Your task to perform on an android device: See recent photos Image 0: 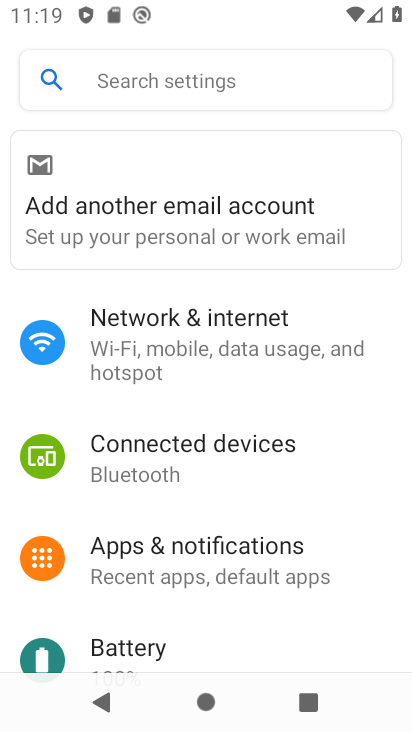
Step 0: press home button
Your task to perform on an android device: See recent photos Image 1: 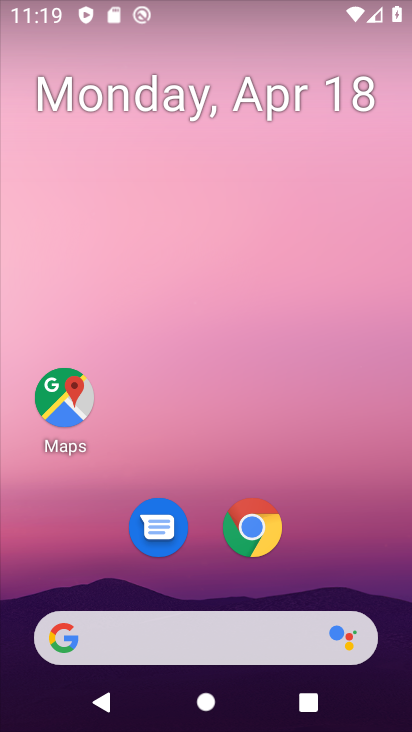
Step 1: drag from (201, 605) to (402, 5)
Your task to perform on an android device: See recent photos Image 2: 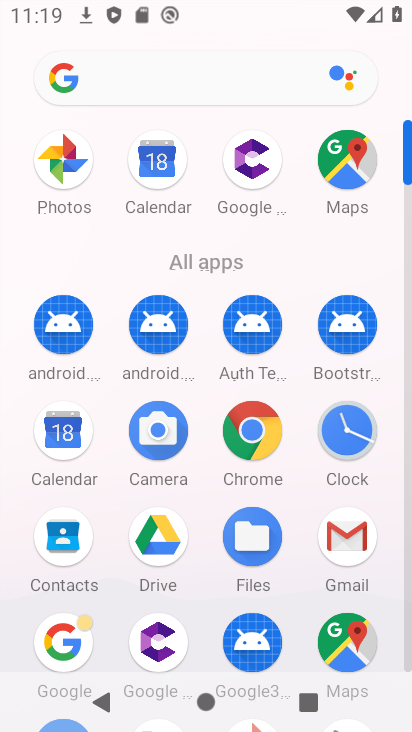
Step 2: click (74, 175)
Your task to perform on an android device: See recent photos Image 3: 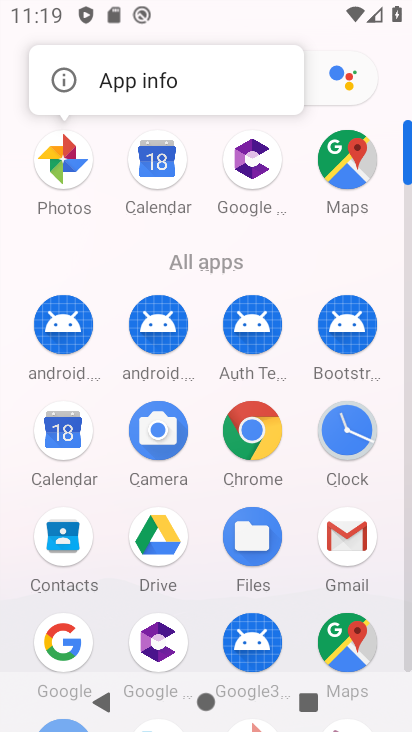
Step 3: click (74, 175)
Your task to perform on an android device: See recent photos Image 4: 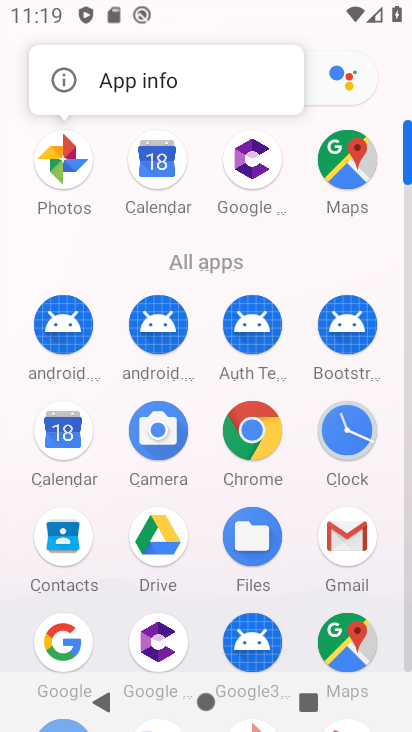
Step 4: click (74, 175)
Your task to perform on an android device: See recent photos Image 5: 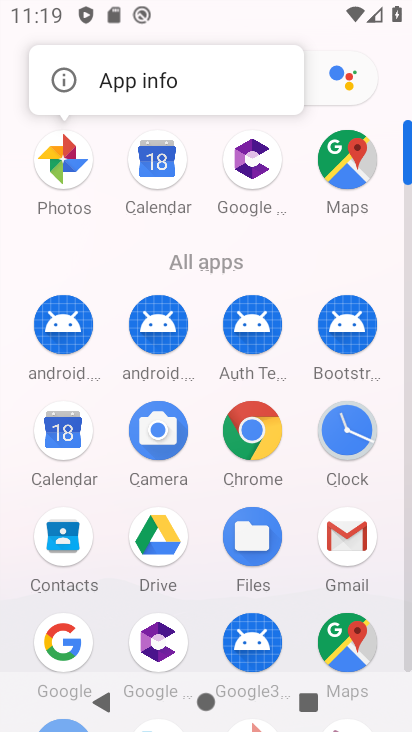
Step 5: click (57, 163)
Your task to perform on an android device: See recent photos Image 6: 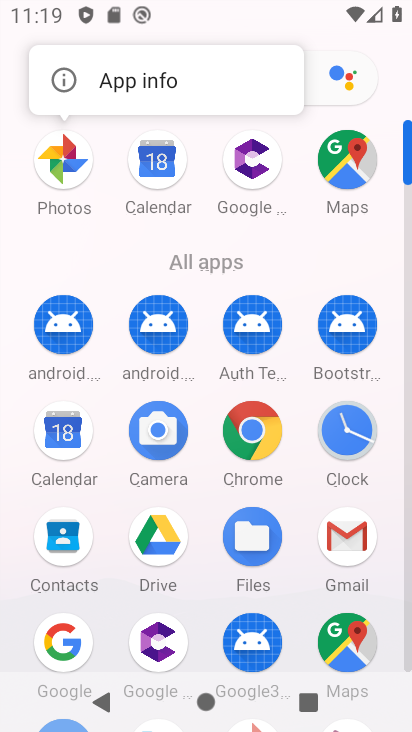
Step 6: click (57, 163)
Your task to perform on an android device: See recent photos Image 7: 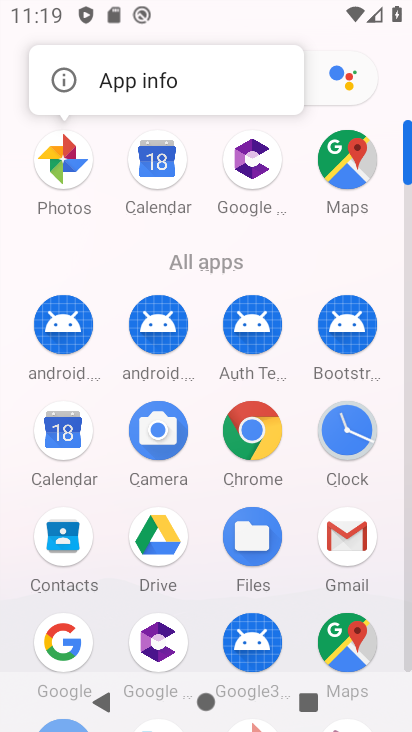
Step 7: click (57, 163)
Your task to perform on an android device: See recent photos Image 8: 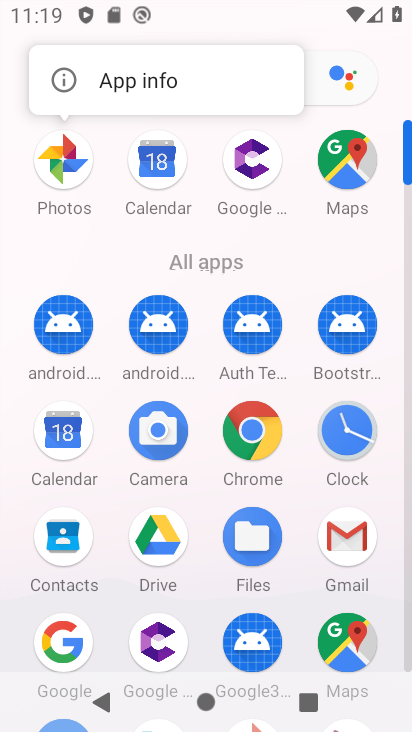
Step 8: click (57, 163)
Your task to perform on an android device: See recent photos Image 9: 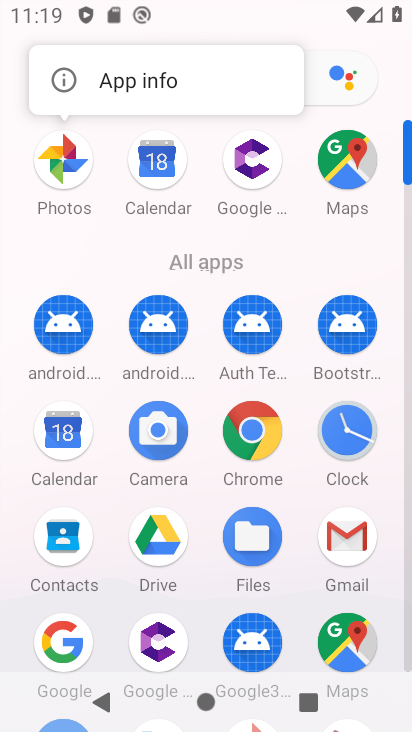
Step 9: click (57, 163)
Your task to perform on an android device: See recent photos Image 10: 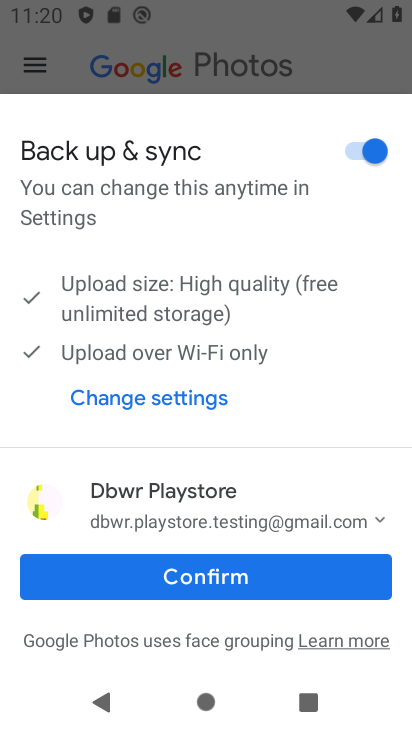
Step 10: click (151, 582)
Your task to perform on an android device: See recent photos Image 11: 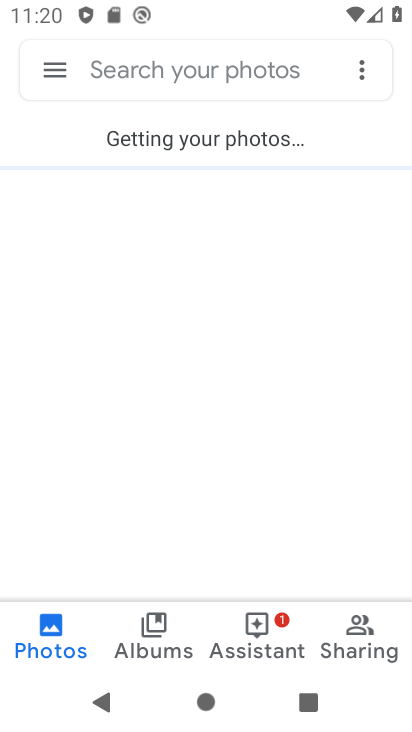
Step 11: task complete